Your task to perform on an android device: Open Google Chrome Image 0: 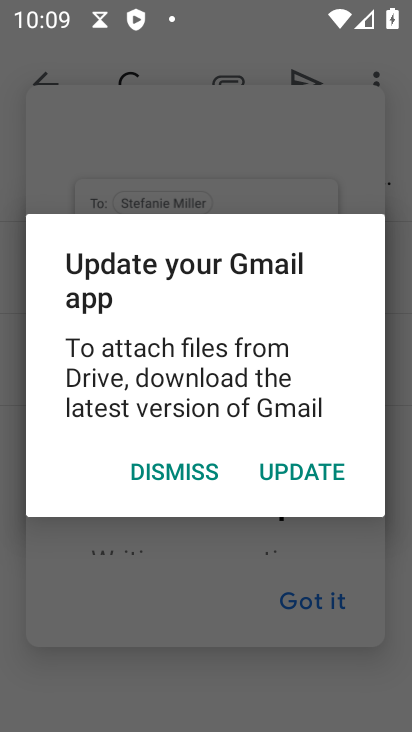
Step 0: press home button
Your task to perform on an android device: Open Google Chrome Image 1: 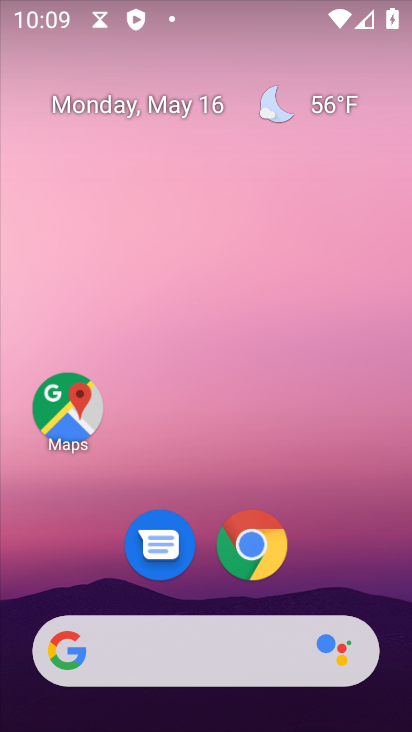
Step 1: click (259, 572)
Your task to perform on an android device: Open Google Chrome Image 2: 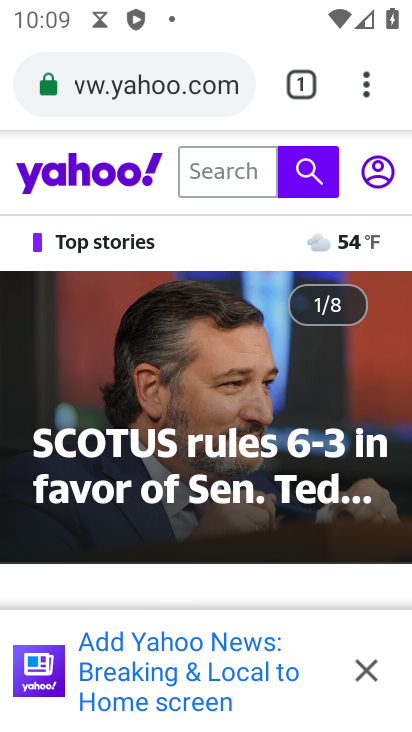
Step 2: task complete